Your task to perform on an android device: toggle show notifications on the lock screen Image 0: 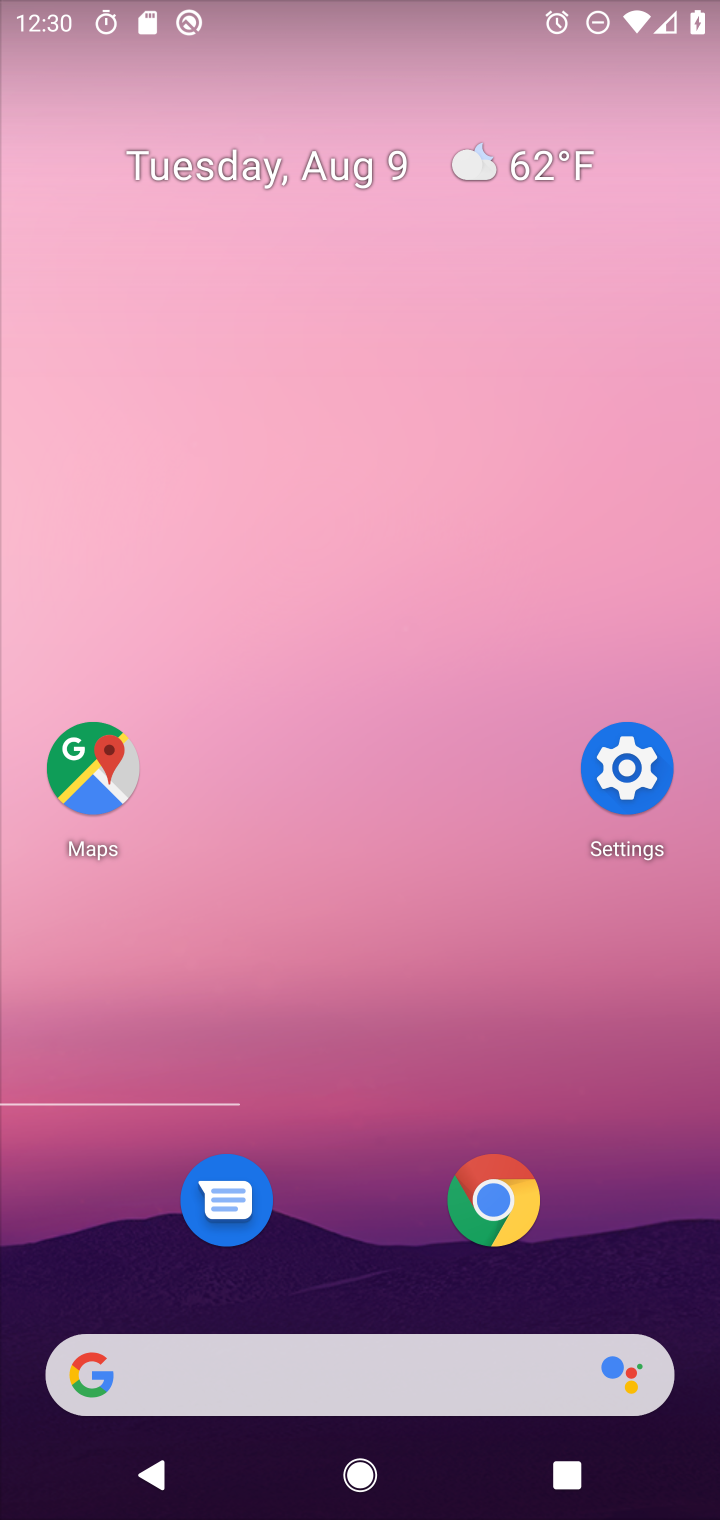
Step 0: press home button
Your task to perform on an android device: toggle show notifications on the lock screen Image 1: 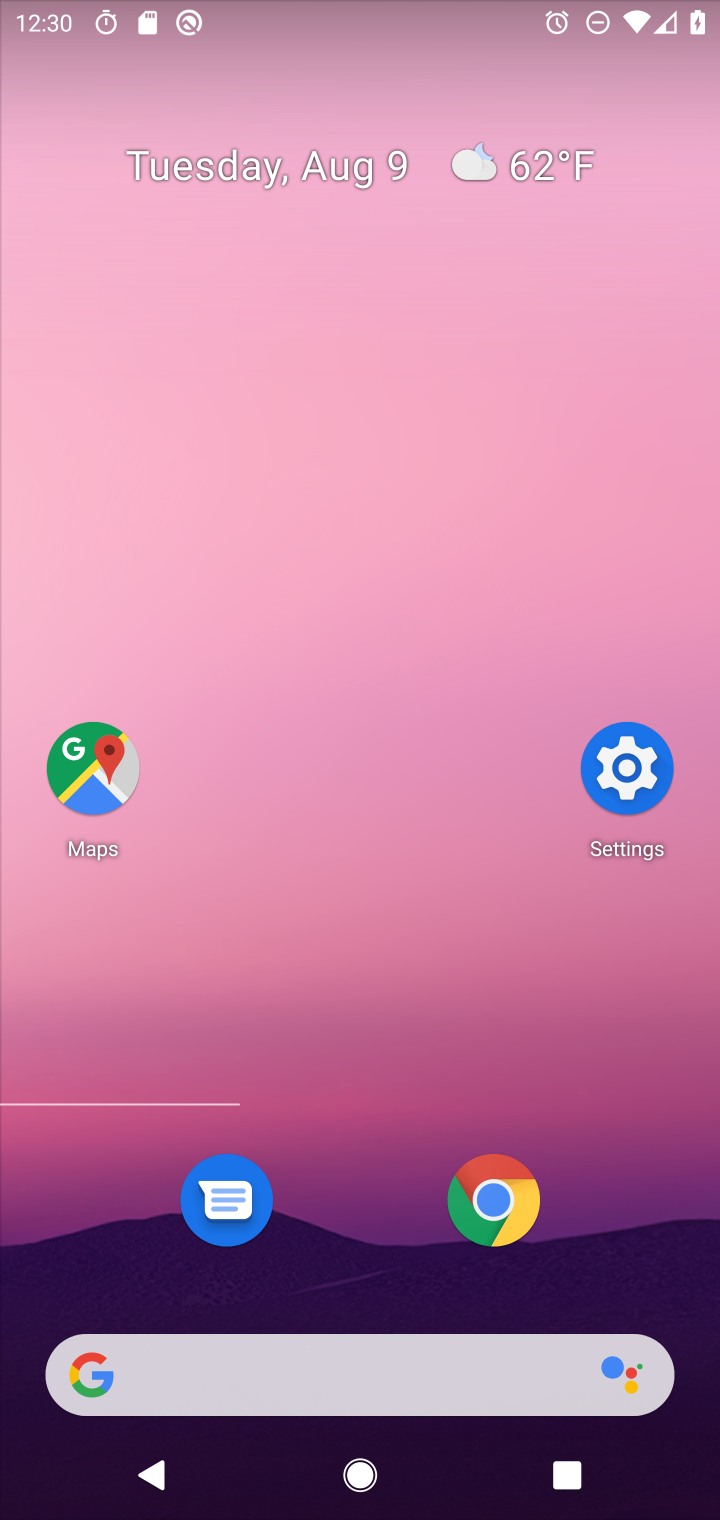
Step 1: click (631, 771)
Your task to perform on an android device: toggle show notifications on the lock screen Image 2: 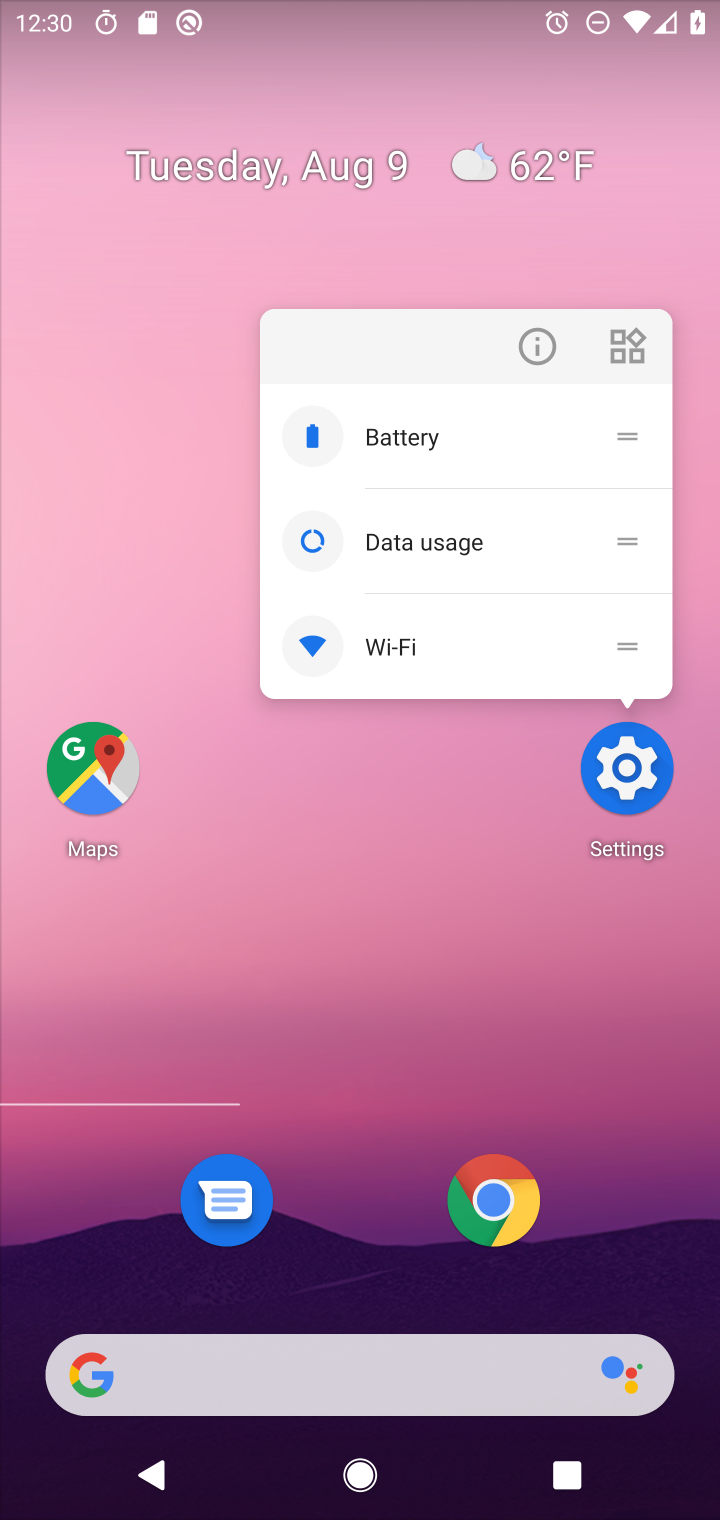
Step 2: click (631, 772)
Your task to perform on an android device: toggle show notifications on the lock screen Image 3: 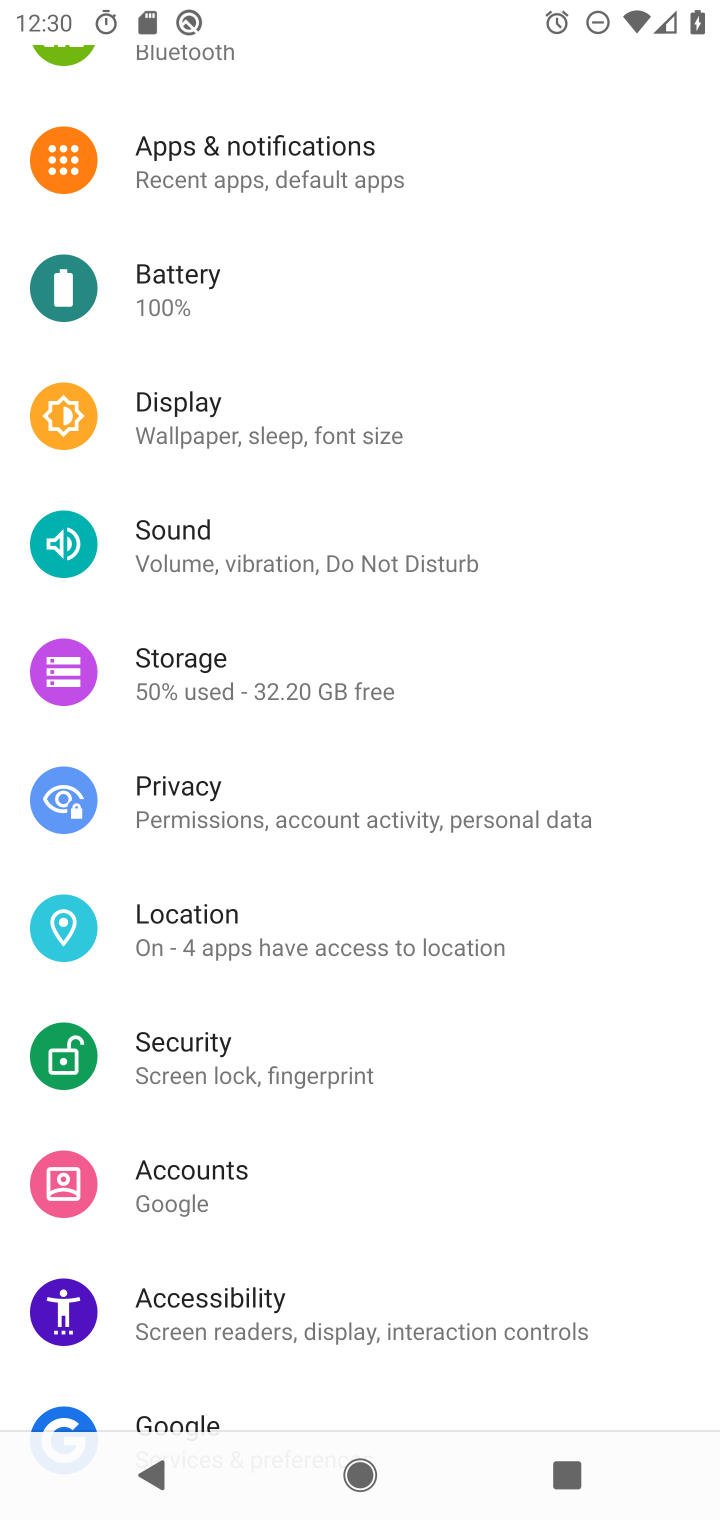
Step 3: click (315, 161)
Your task to perform on an android device: toggle show notifications on the lock screen Image 4: 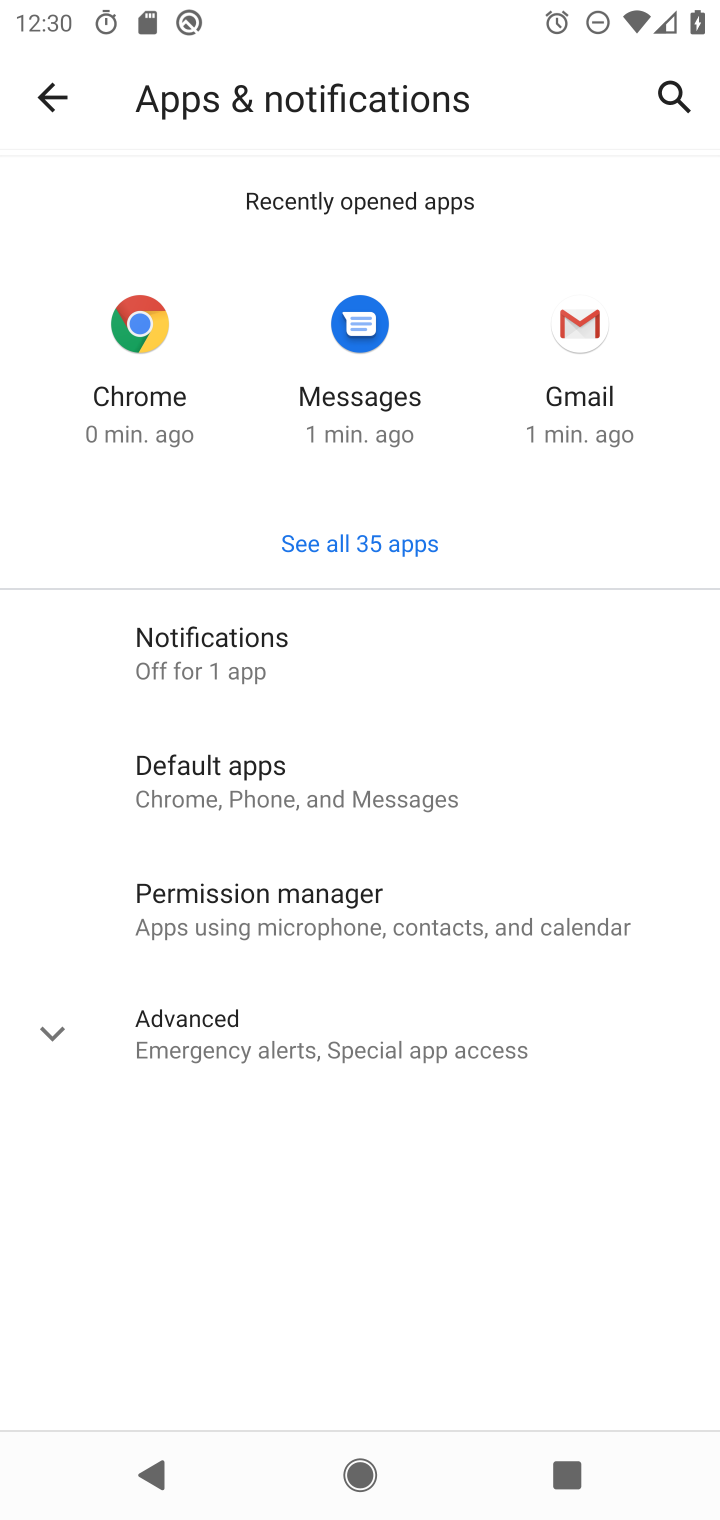
Step 4: click (240, 682)
Your task to perform on an android device: toggle show notifications on the lock screen Image 5: 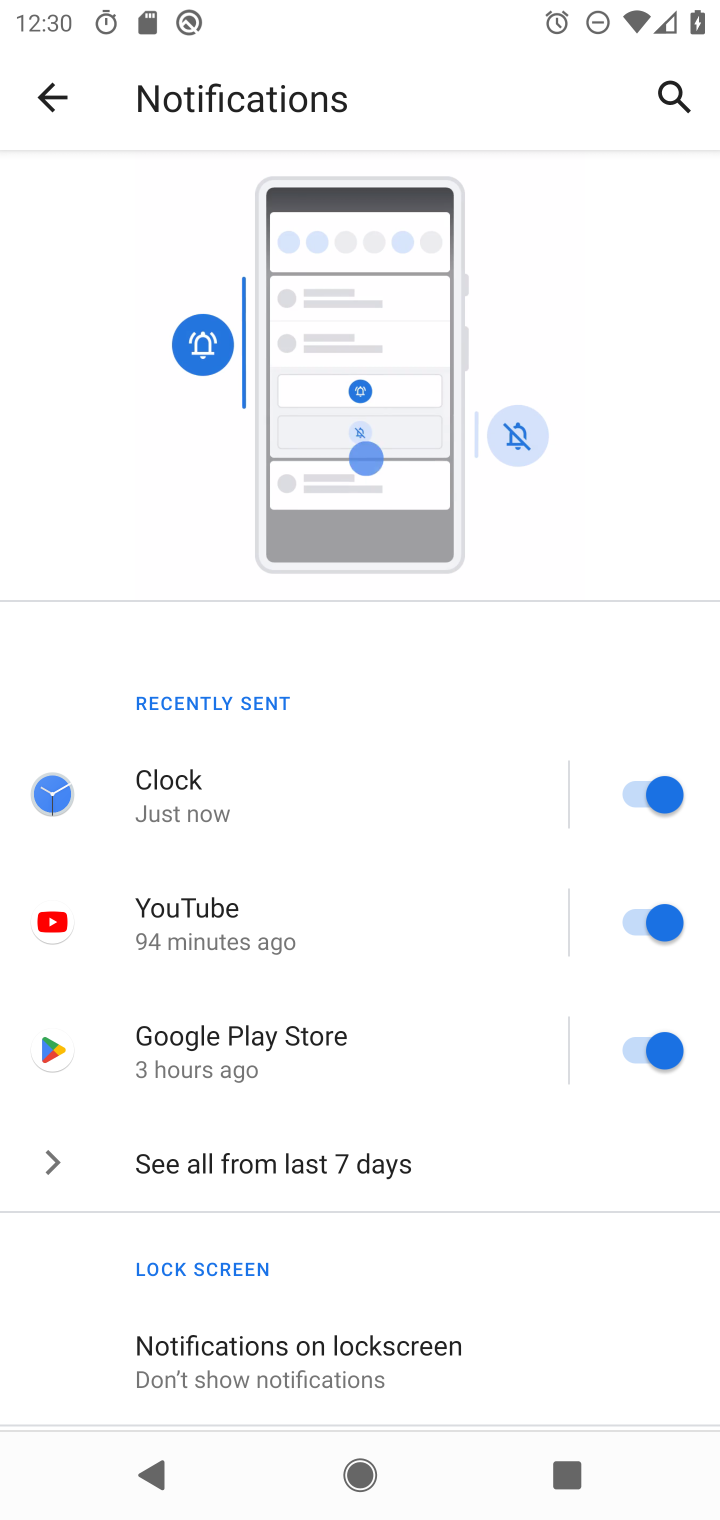
Step 5: drag from (482, 1075) to (663, 378)
Your task to perform on an android device: toggle show notifications on the lock screen Image 6: 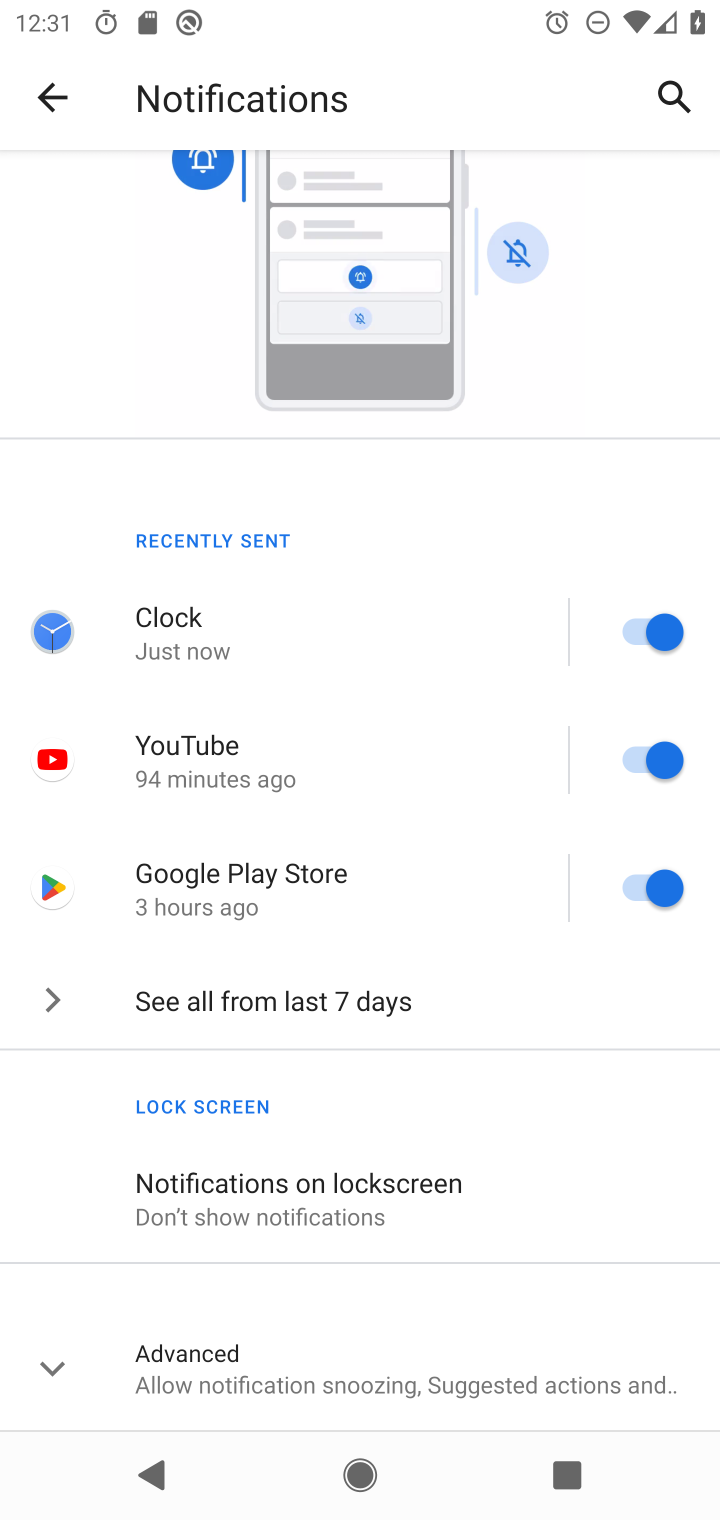
Step 6: click (335, 1186)
Your task to perform on an android device: toggle show notifications on the lock screen Image 7: 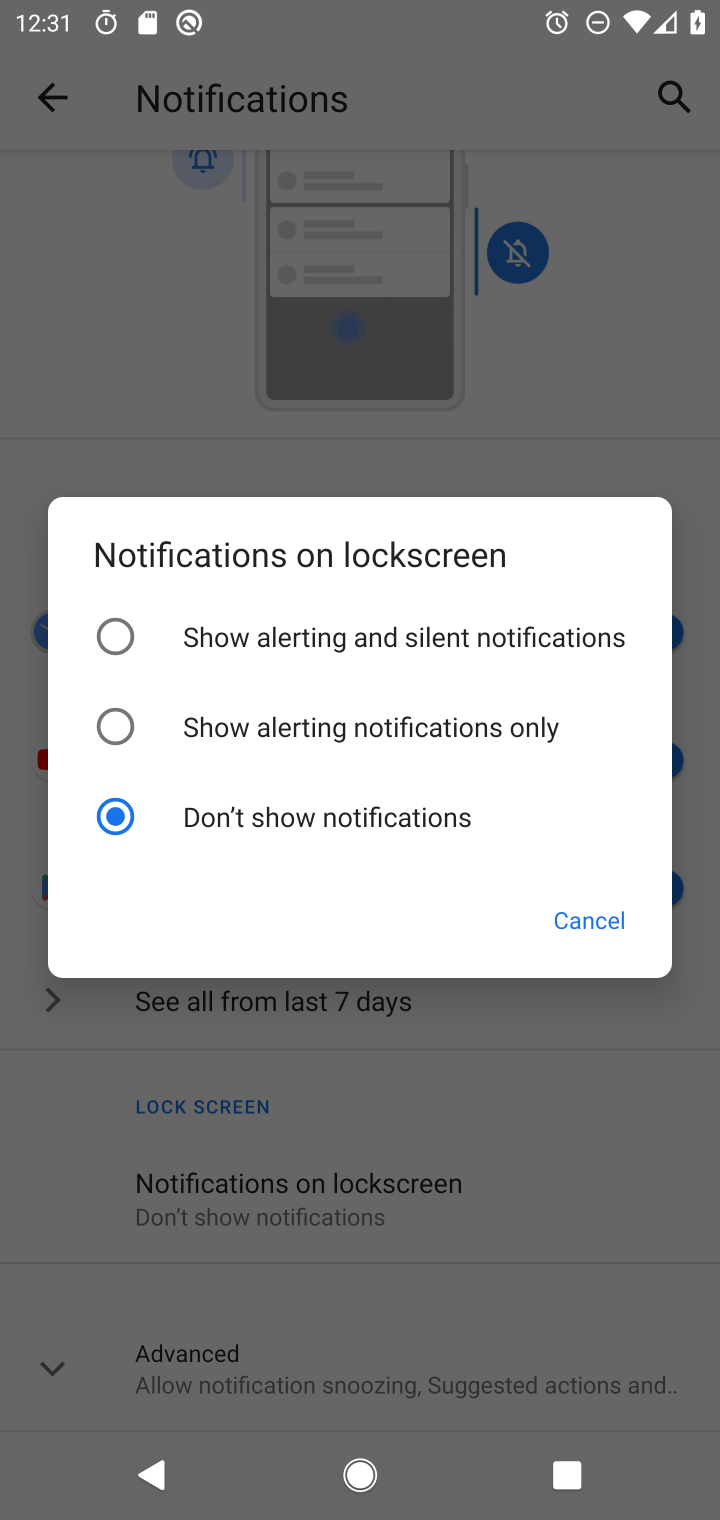
Step 7: click (116, 627)
Your task to perform on an android device: toggle show notifications on the lock screen Image 8: 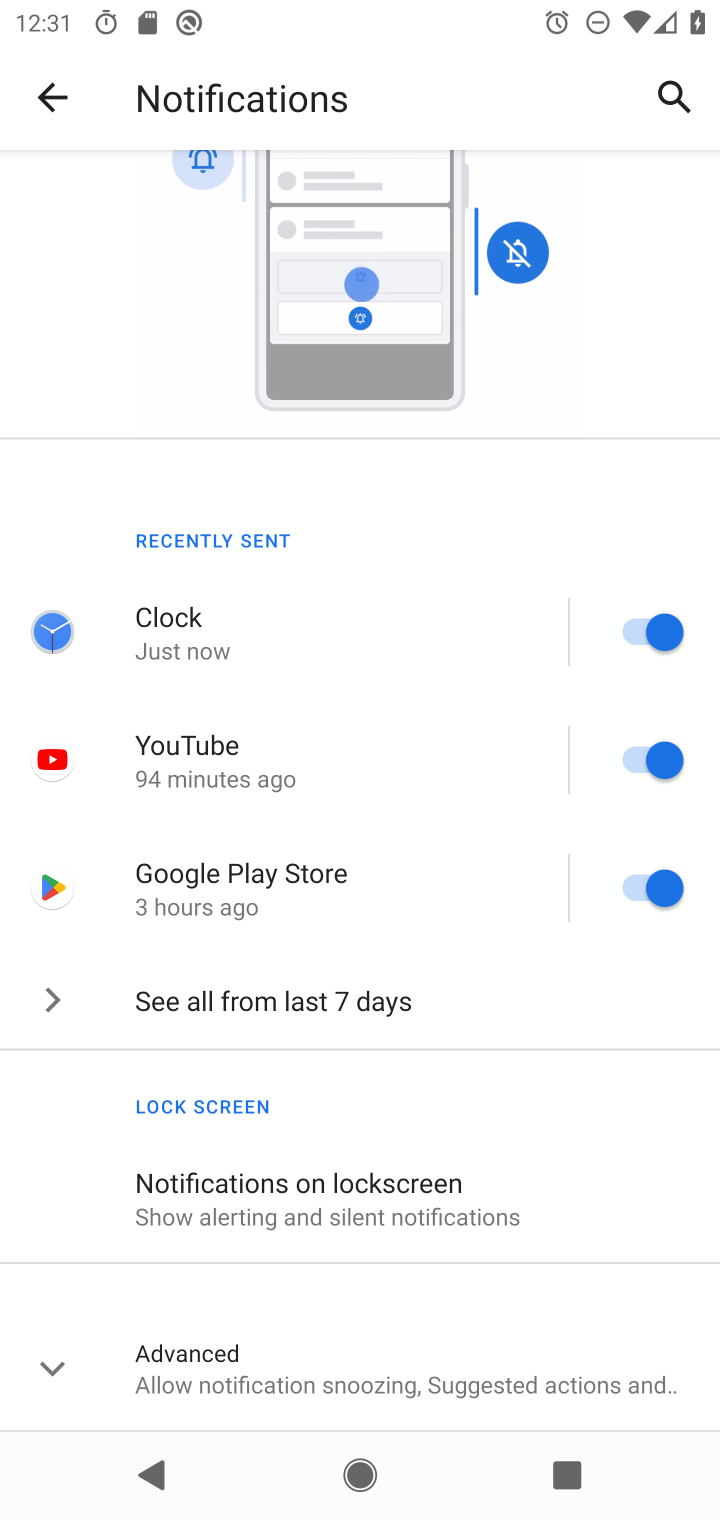
Step 8: task complete